Your task to perform on an android device: toggle javascript in the chrome app Image 0: 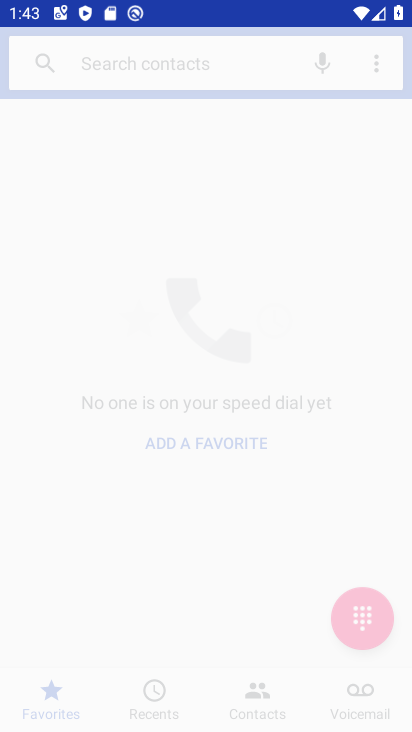
Step 0: drag from (217, 714) to (225, 348)
Your task to perform on an android device: toggle javascript in the chrome app Image 1: 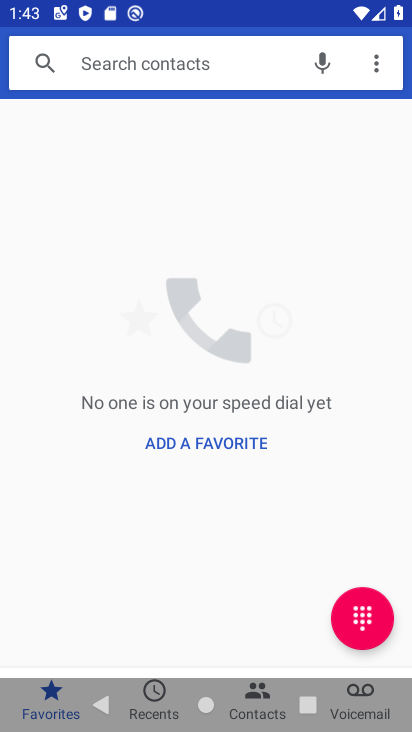
Step 1: press home button
Your task to perform on an android device: toggle javascript in the chrome app Image 2: 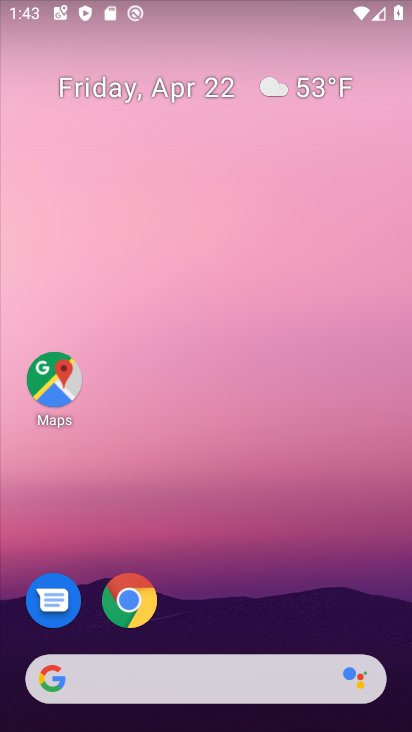
Step 2: click (125, 598)
Your task to perform on an android device: toggle javascript in the chrome app Image 3: 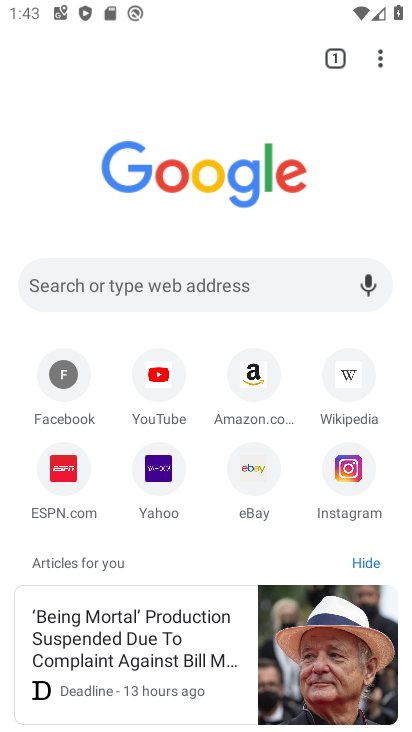
Step 3: drag from (382, 54) to (219, 558)
Your task to perform on an android device: toggle javascript in the chrome app Image 4: 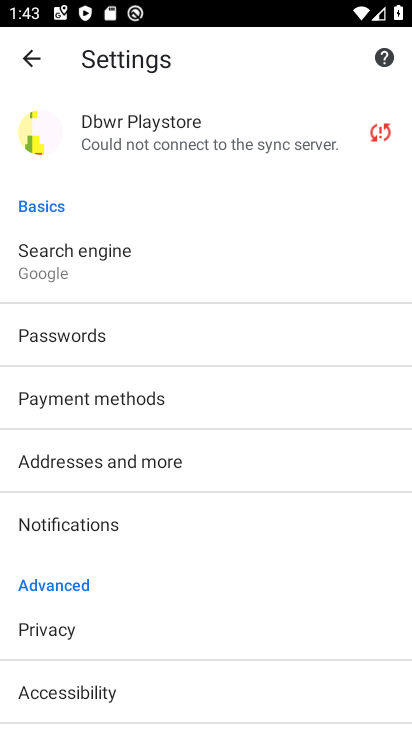
Step 4: drag from (130, 632) to (143, 321)
Your task to perform on an android device: toggle javascript in the chrome app Image 5: 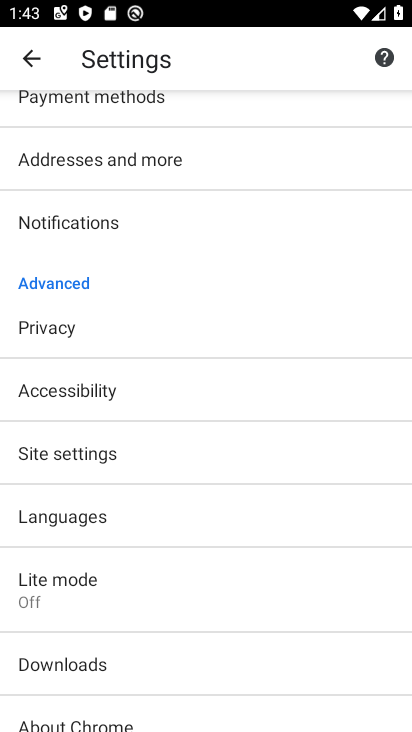
Step 5: click (88, 448)
Your task to perform on an android device: toggle javascript in the chrome app Image 6: 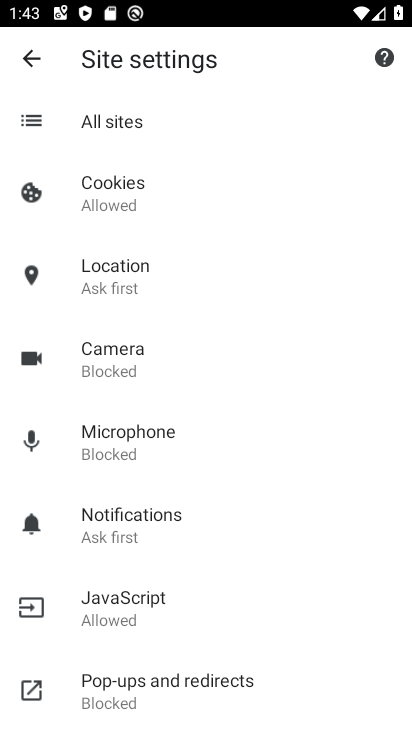
Step 6: click (111, 599)
Your task to perform on an android device: toggle javascript in the chrome app Image 7: 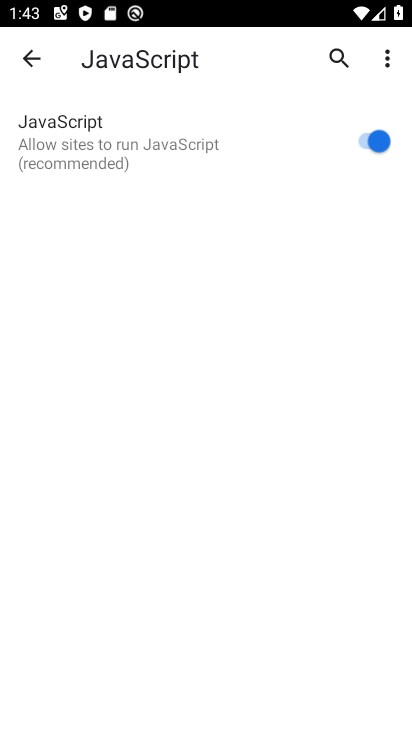
Step 7: click (362, 143)
Your task to perform on an android device: toggle javascript in the chrome app Image 8: 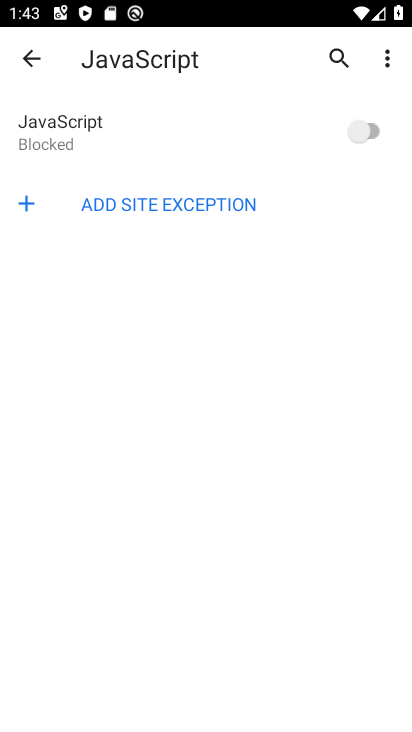
Step 8: task complete